Your task to perform on an android device: toggle data saver in the chrome app Image 0: 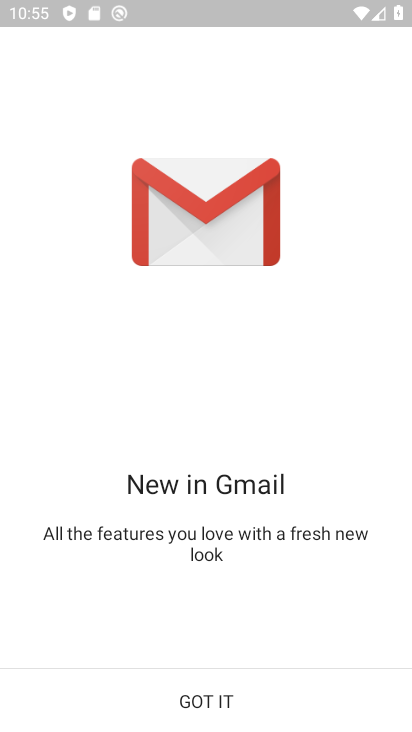
Step 0: press home button
Your task to perform on an android device: toggle data saver in the chrome app Image 1: 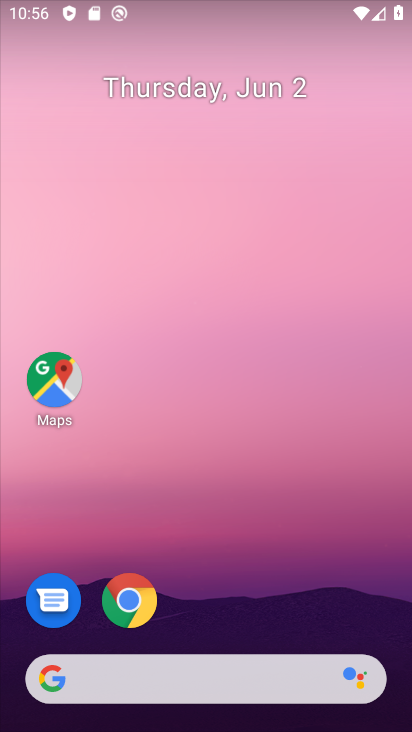
Step 1: click (141, 611)
Your task to perform on an android device: toggle data saver in the chrome app Image 2: 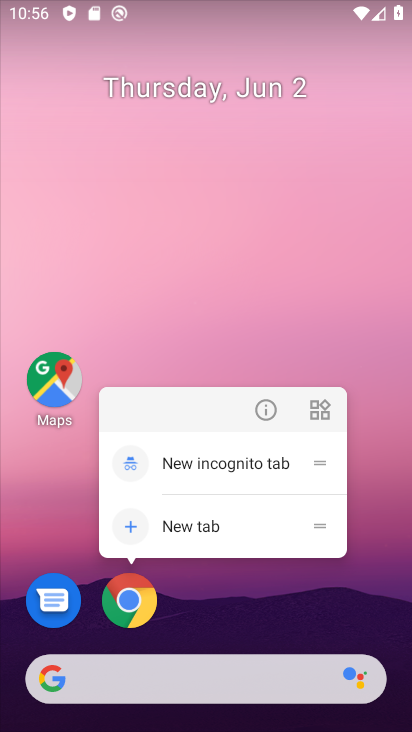
Step 2: click (141, 617)
Your task to perform on an android device: toggle data saver in the chrome app Image 3: 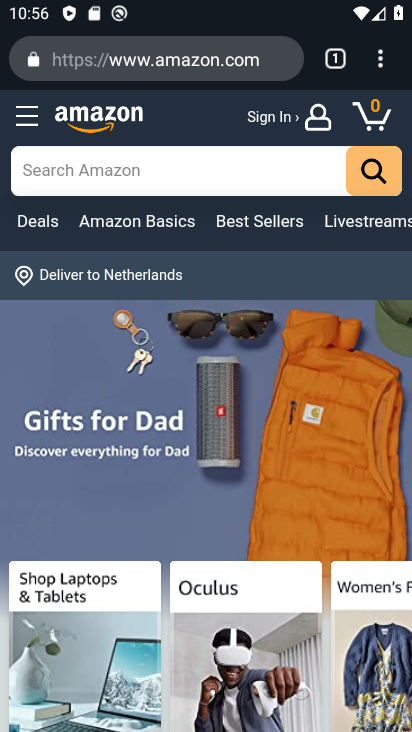
Step 3: click (393, 59)
Your task to perform on an android device: toggle data saver in the chrome app Image 4: 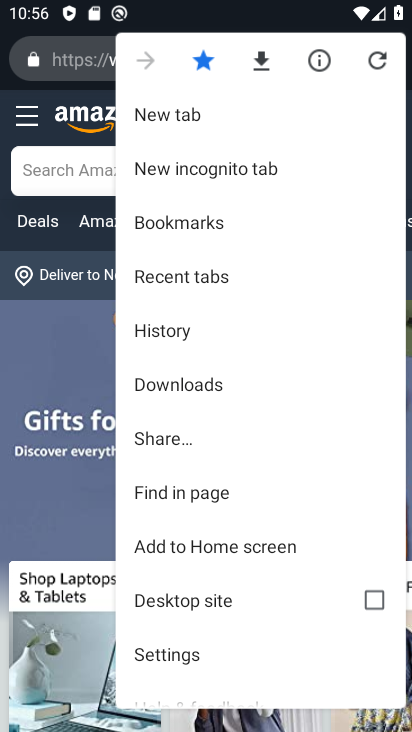
Step 4: click (184, 663)
Your task to perform on an android device: toggle data saver in the chrome app Image 5: 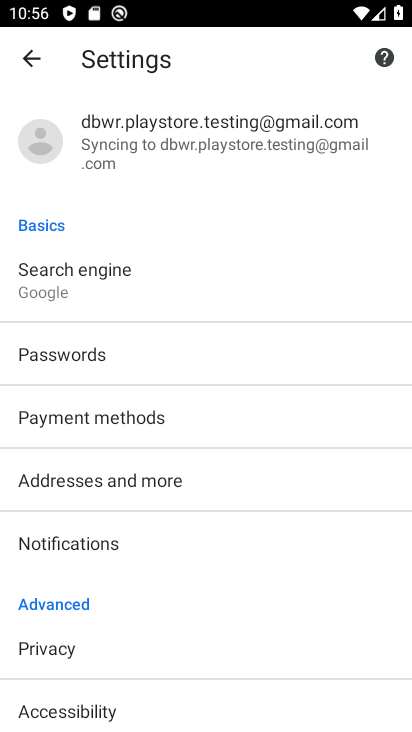
Step 5: drag from (191, 684) to (181, 208)
Your task to perform on an android device: toggle data saver in the chrome app Image 6: 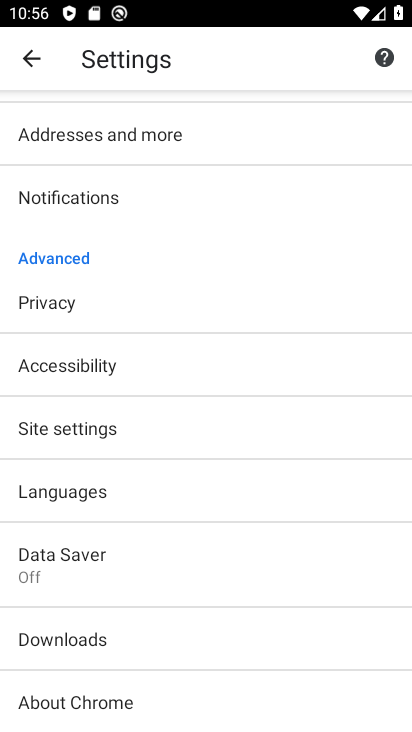
Step 6: click (111, 544)
Your task to perform on an android device: toggle data saver in the chrome app Image 7: 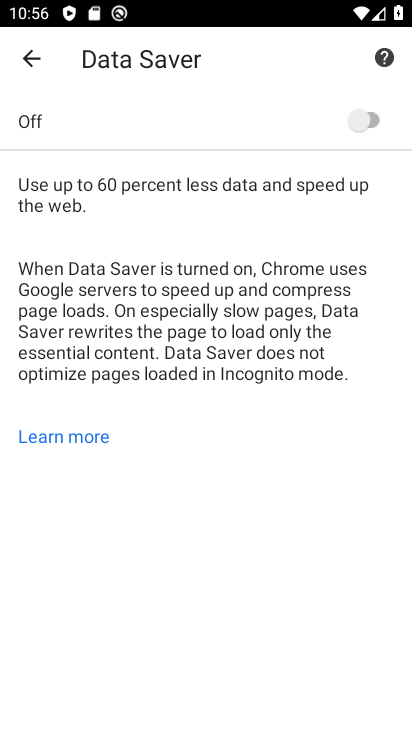
Step 7: click (373, 115)
Your task to perform on an android device: toggle data saver in the chrome app Image 8: 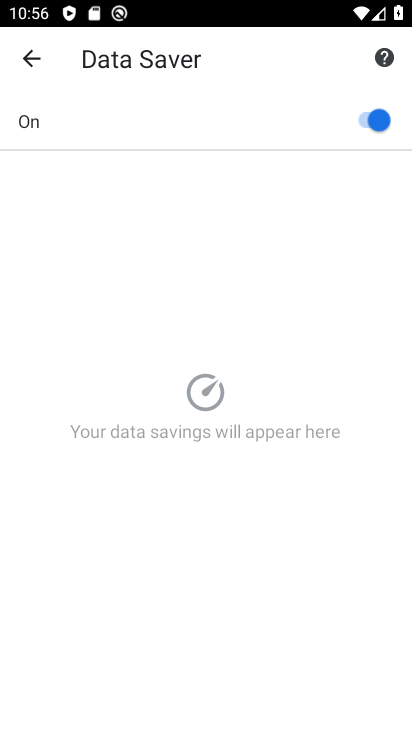
Step 8: task complete